Your task to perform on an android device: turn smart compose on in the gmail app Image 0: 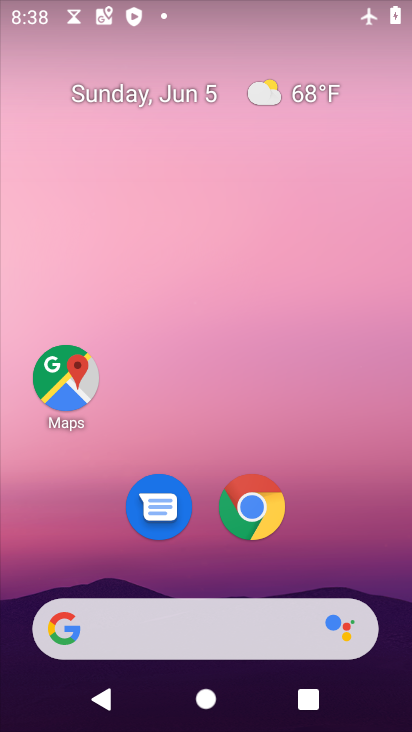
Step 0: drag from (205, 585) to (235, 0)
Your task to perform on an android device: turn smart compose on in the gmail app Image 1: 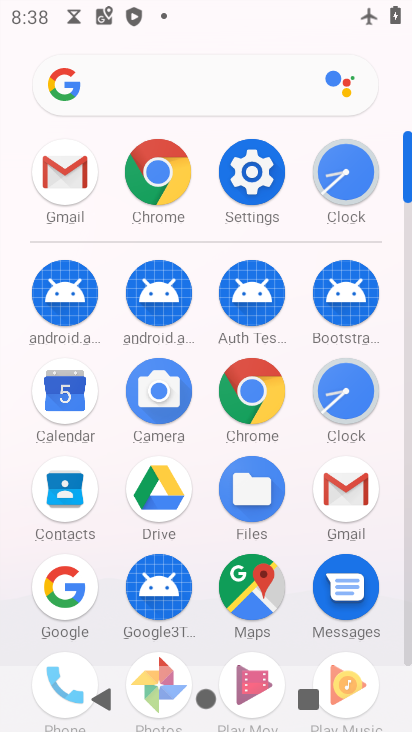
Step 1: click (334, 490)
Your task to perform on an android device: turn smart compose on in the gmail app Image 2: 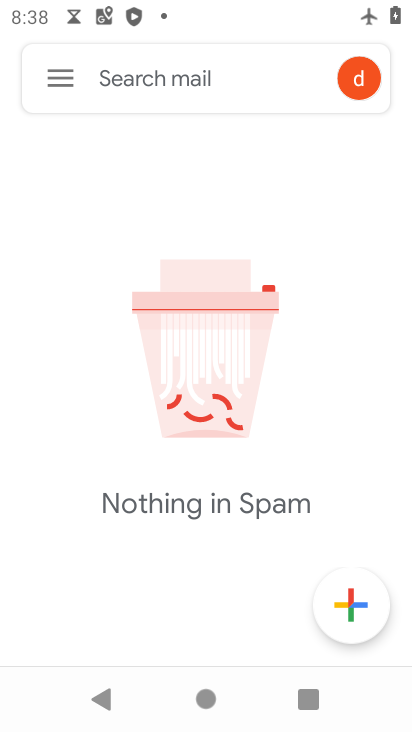
Step 2: click (61, 86)
Your task to perform on an android device: turn smart compose on in the gmail app Image 3: 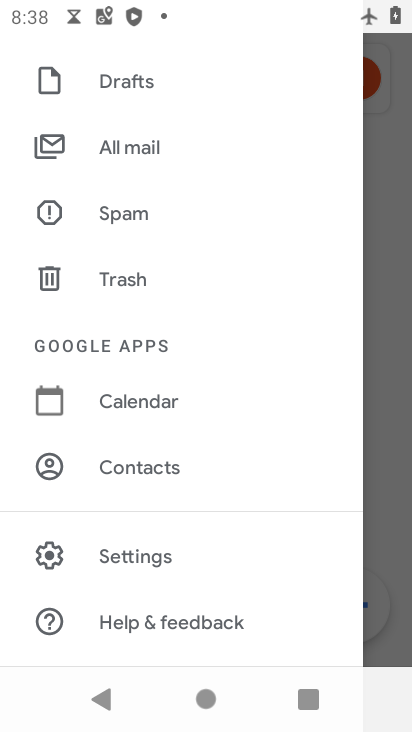
Step 3: click (159, 562)
Your task to perform on an android device: turn smart compose on in the gmail app Image 4: 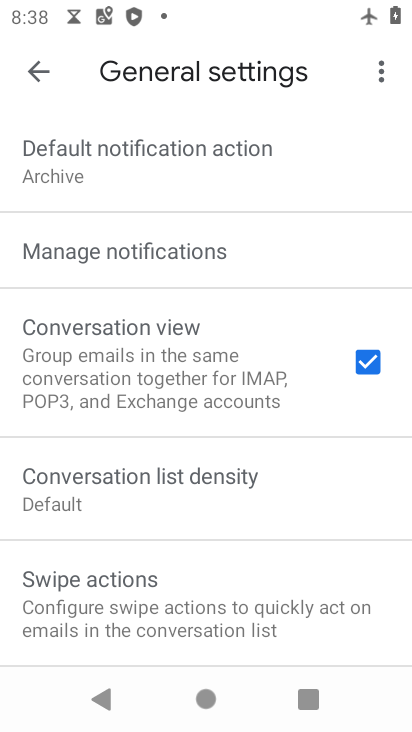
Step 4: click (33, 81)
Your task to perform on an android device: turn smart compose on in the gmail app Image 5: 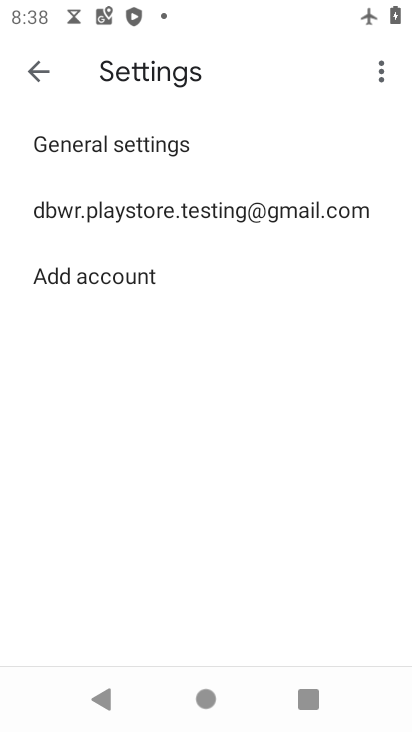
Step 5: click (154, 214)
Your task to perform on an android device: turn smart compose on in the gmail app Image 6: 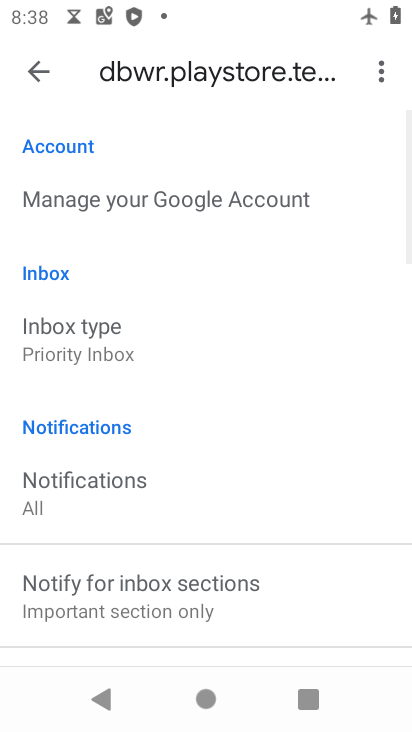
Step 6: task complete